Your task to perform on an android device: Open settings Image 0: 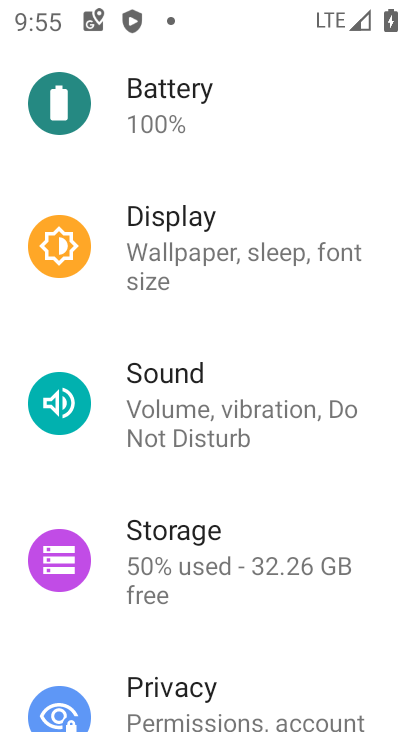
Step 0: task complete